Your task to perform on an android device: What's the weather? Image 0: 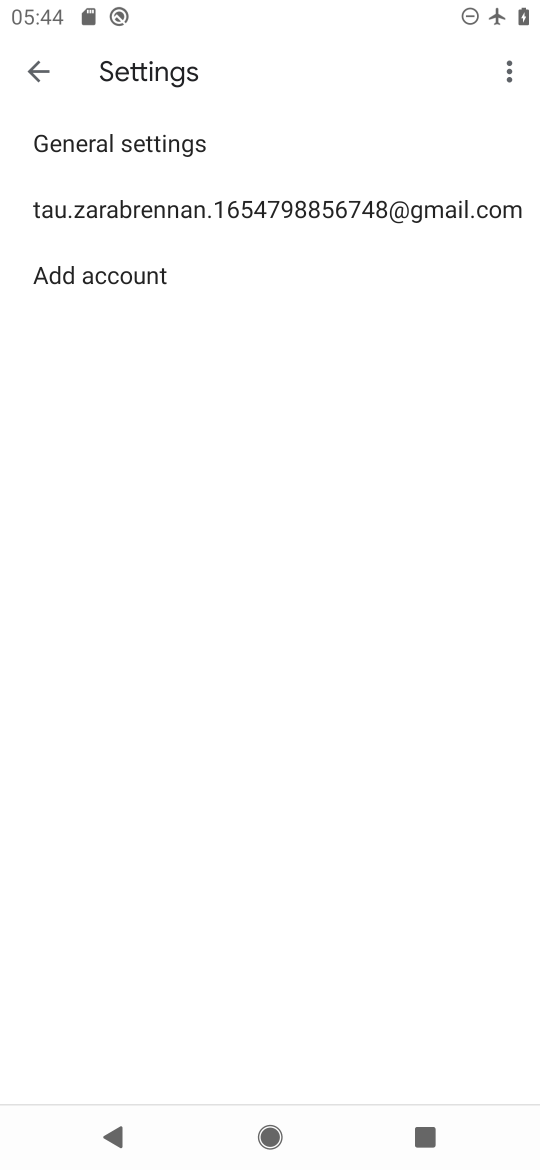
Step 0: press back button
Your task to perform on an android device: What's the weather? Image 1: 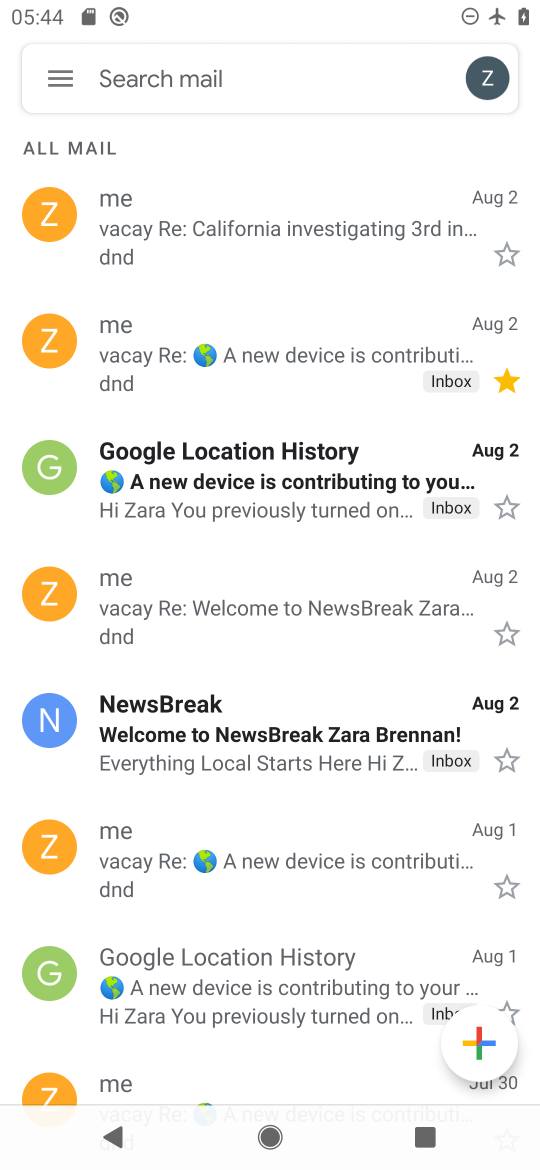
Step 1: press home button
Your task to perform on an android device: What's the weather? Image 2: 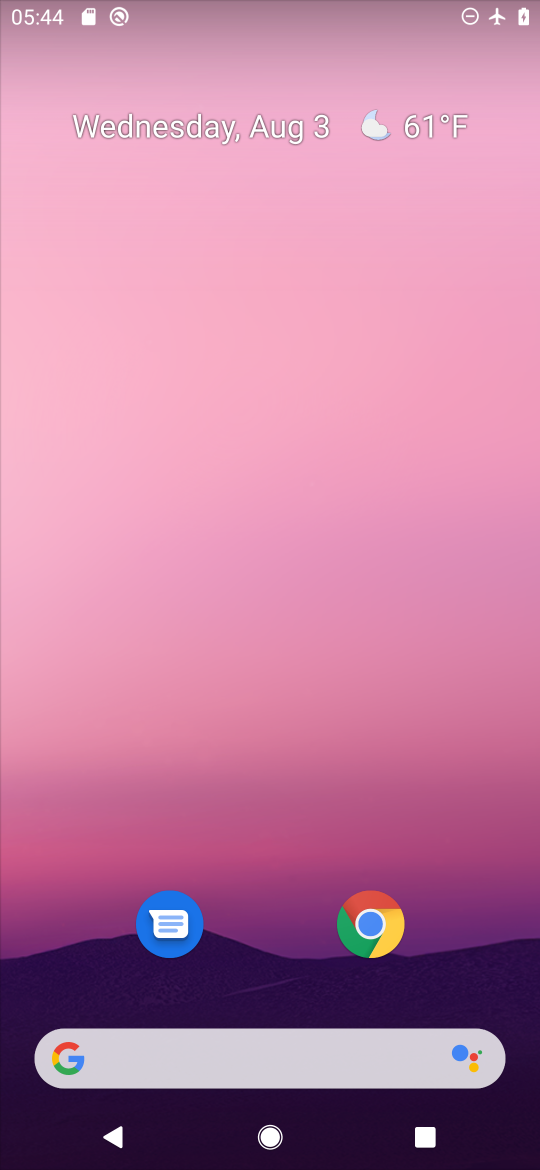
Step 2: drag from (251, 983) to (255, 314)
Your task to perform on an android device: What's the weather? Image 3: 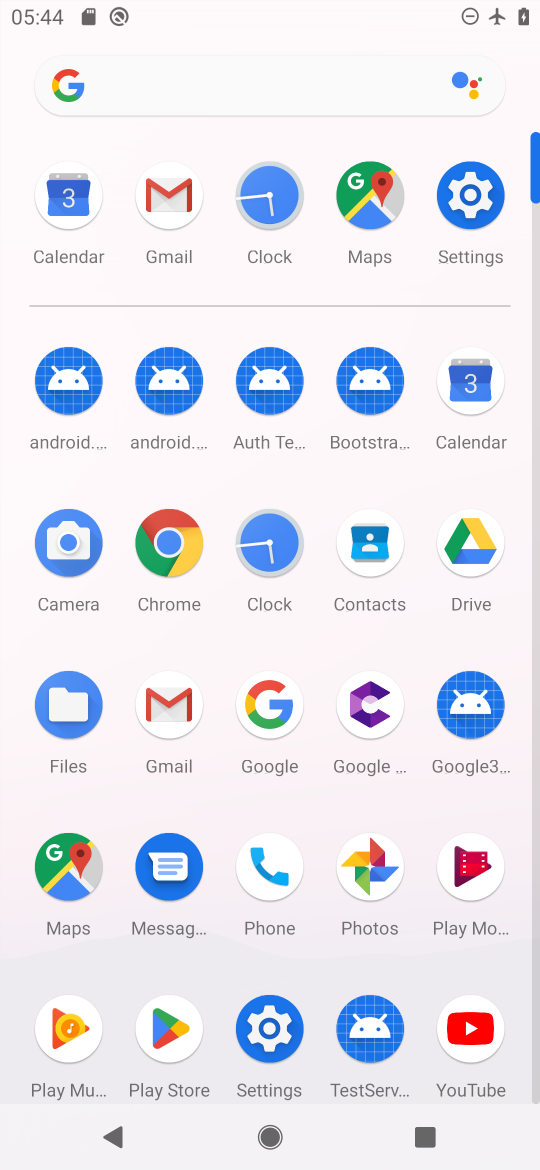
Step 3: click (276, 694)
Your task to perform on an android device: What's the weather? Image 4: 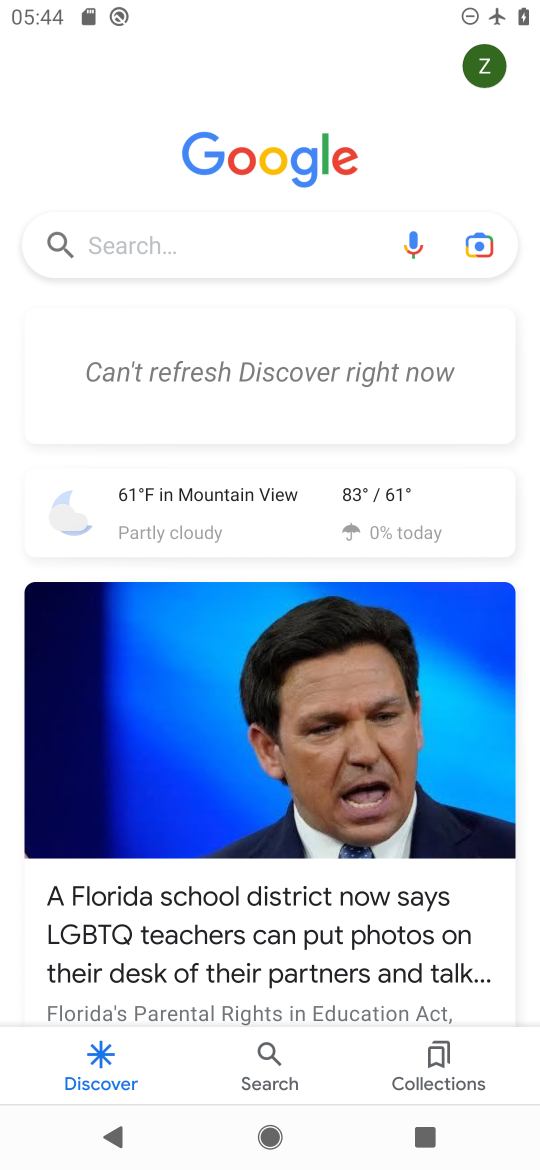
Step 4: click (207, 254)
Your task to perform on an android device: What's the weather? Image 5: 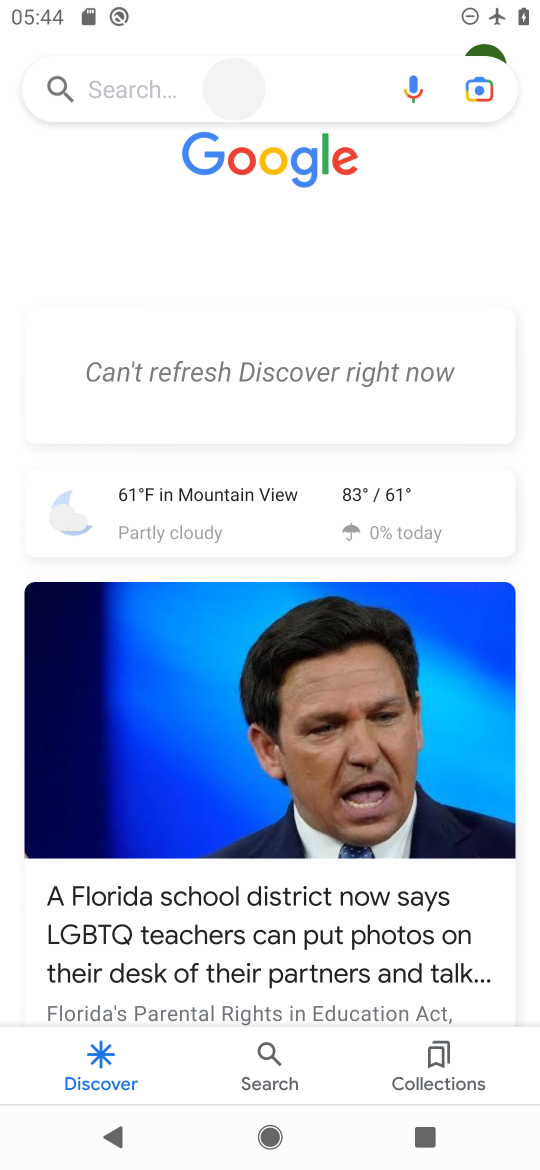
Step 5: click (252, 500)
Your task to perform on an android device: What's the weather? Image 6: 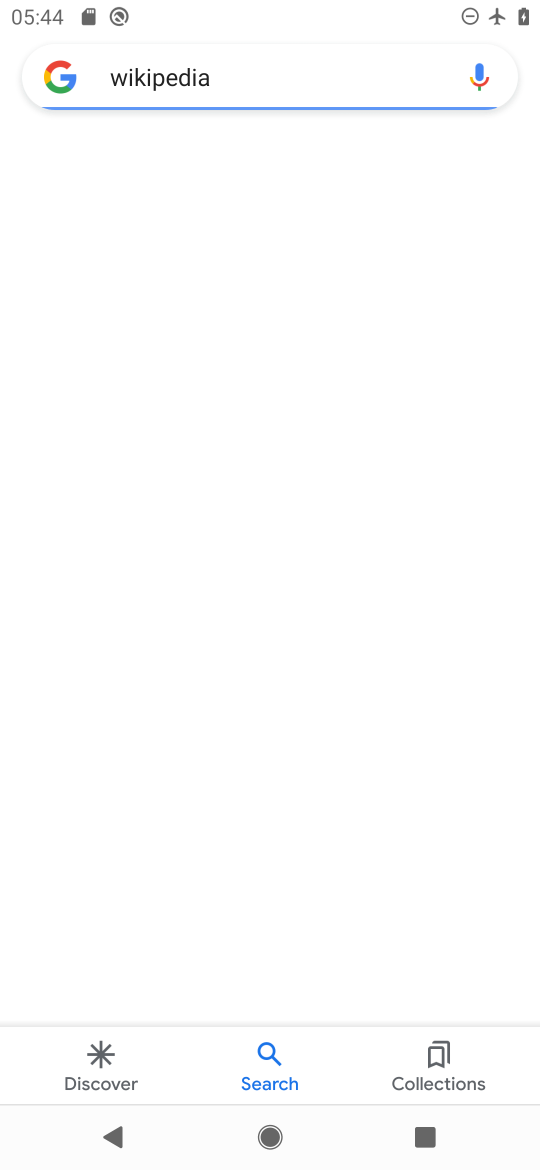
Step 6: click (252, 500)
Your task to perform on an android device: What's the weather? Image 7: 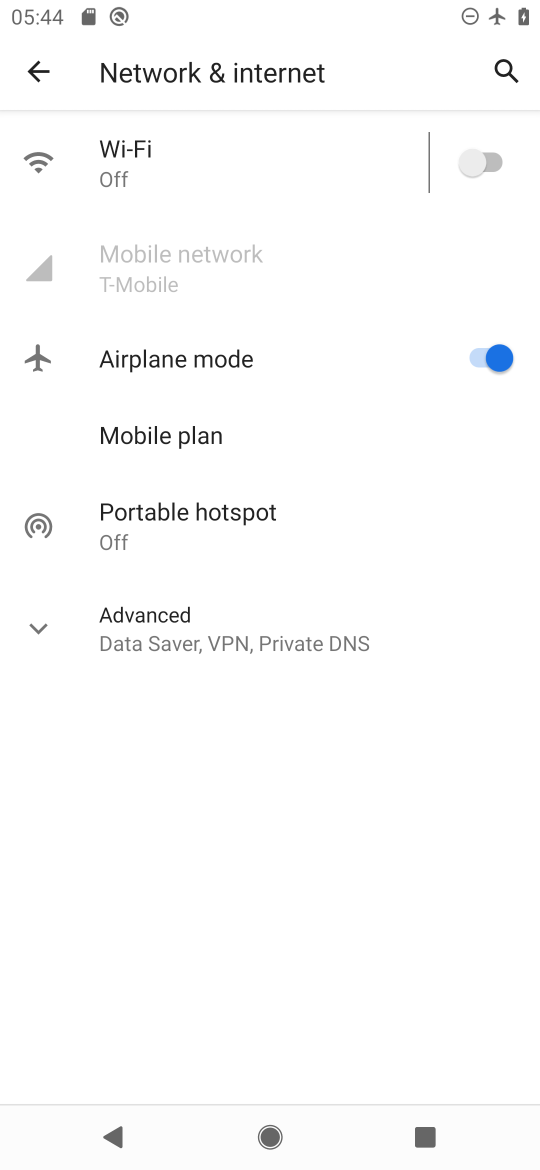
Step 7: task complete